Your task to perform on an android device: Go to calendar. Show me events next week Image 0: 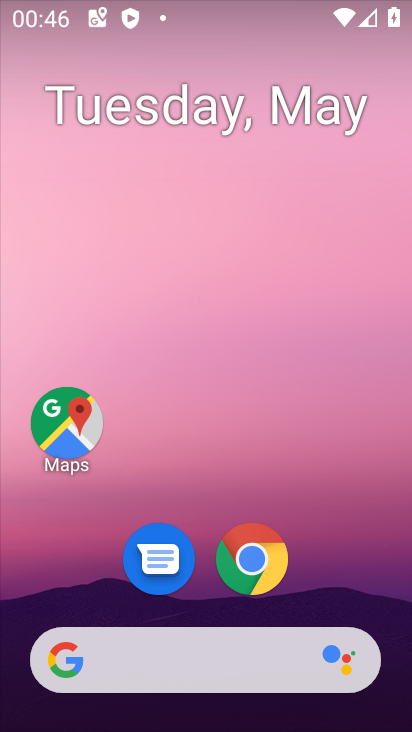
Step 0: drag from (325, 482) to (341, 44)
Your task to perform on an android device: Go to calendar. Show me events next week Image 1: 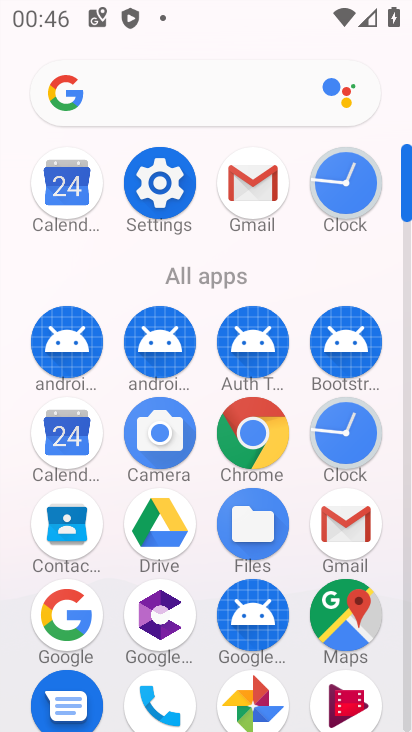
Step 1: click (48, 447)
Your task to perform on an android device: Go to calendar. Show me events next week Image 2: 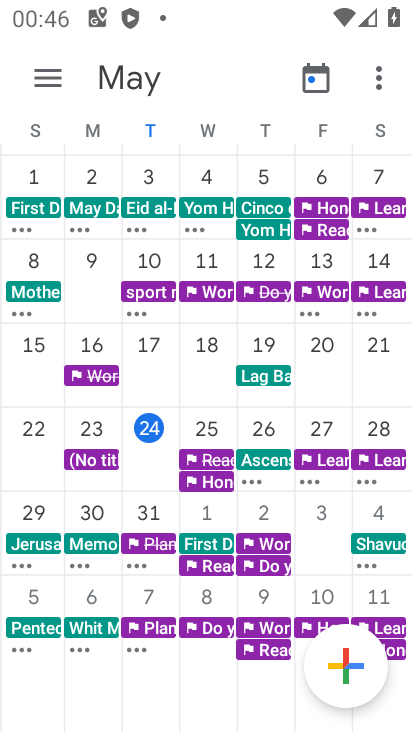
Step 2: task complete